Your task to perform on an android device: Go to wifi settings Image 0: 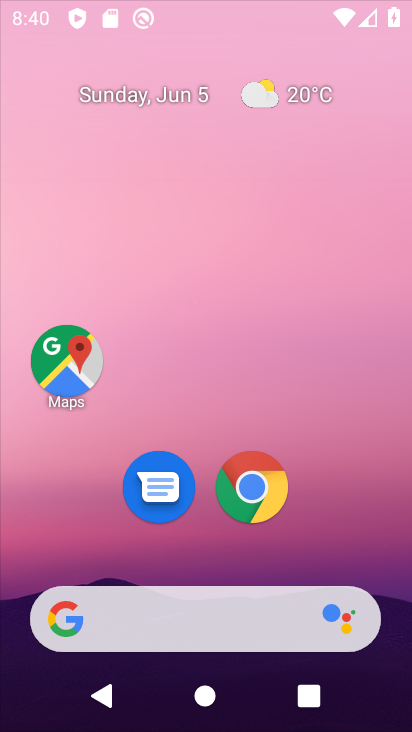
Step 0: drag from (166, 556) to (154, 486)
Your task to perform on an android device: Go to wifi settings Image 1: 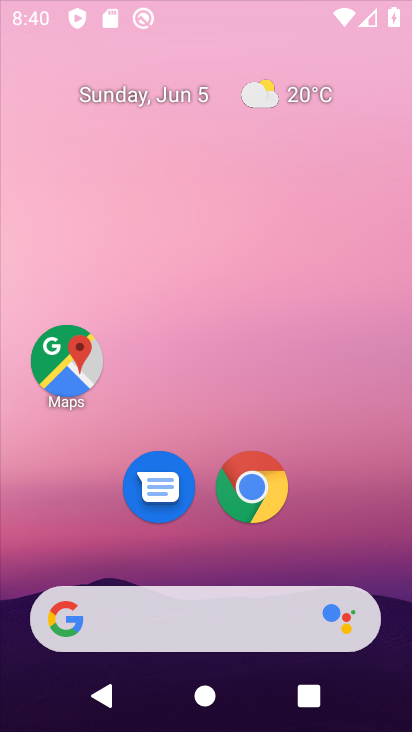
Step 1: drag from (237, 615) to (219, 252)
Your task to perform on an android device: Go to wifi settings Image 2: 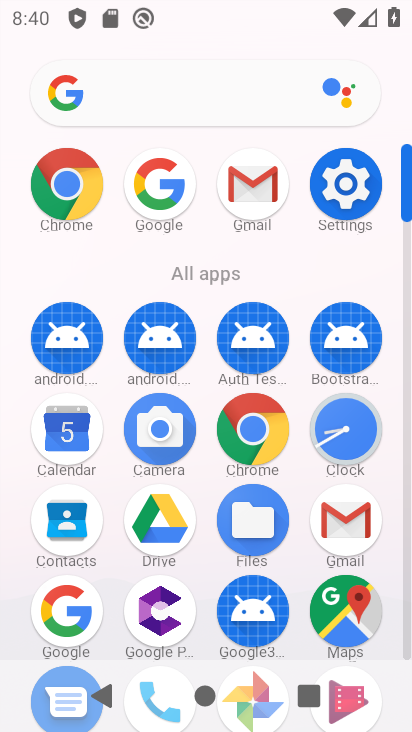
Step 2: click (361, 214)
Your task to perform on an android device: Go to wifi settings Image 3: 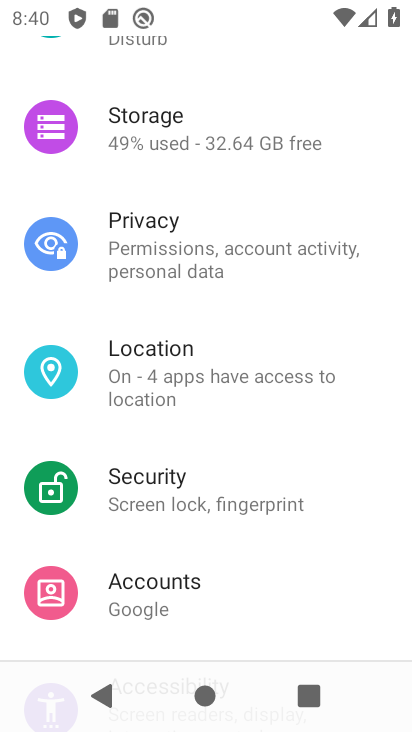
Step 3: drag from (184, 239) to (186, 466)
Your task to perform on an android device: Go to wifi settings Image 4: 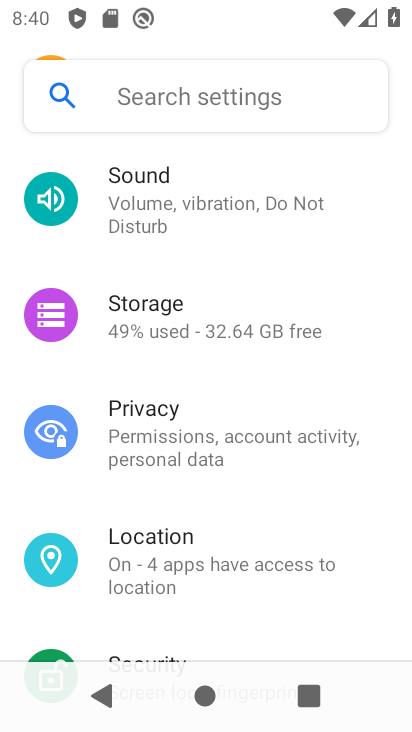
Step 4: drag from (139, 310) to (103, 510)
Your task to perform on an android device: Go to wifi settings Image 5: 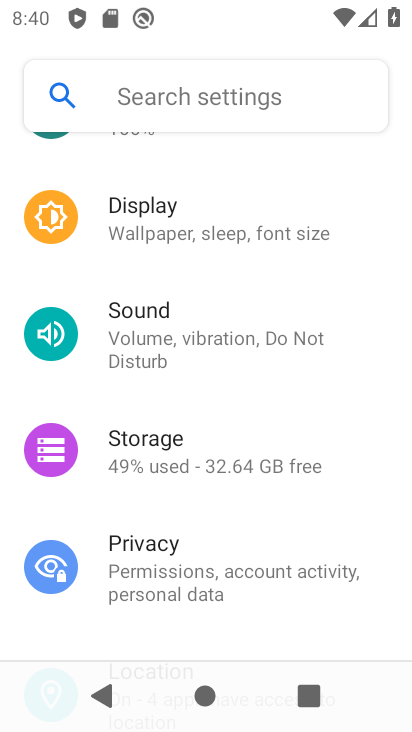
Step 5: drag from (197, 361) to (165, 566)
Your task to perform on an android device: Go to wifi settings Image 6: 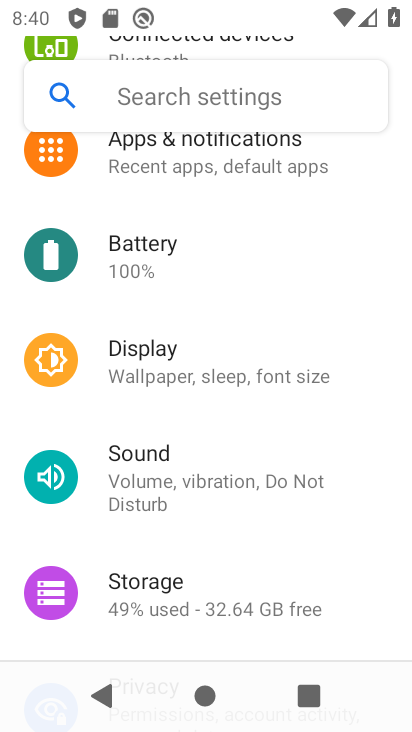
Step 6: drag from (219, 341) to (209, 584)
Your task to perform on an android device: Go to wifi settings Image 7: 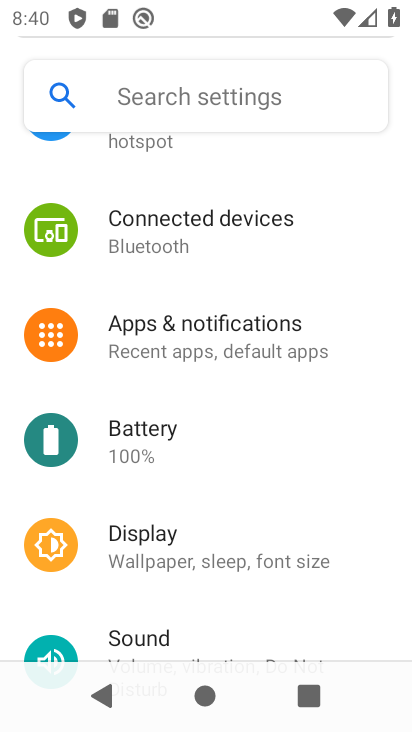
Step 7: drag from (196, 394) to (185, 569)
Your task to perform on an android device: Go to wifi settings Image 8: 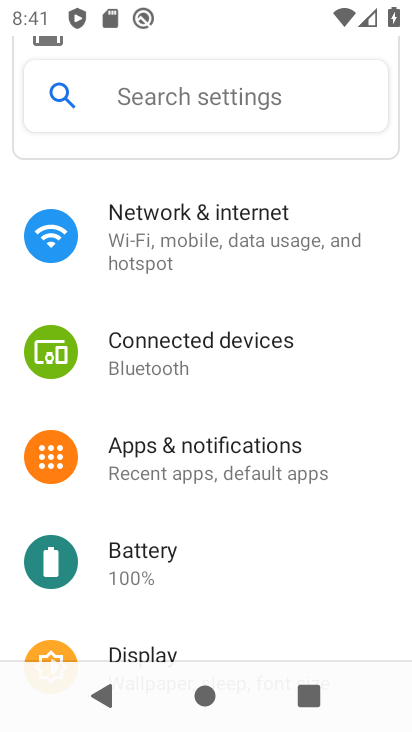
Step 8: click (245, 235)
Your task to perform on an android device: Go to wifi settings Image 9: 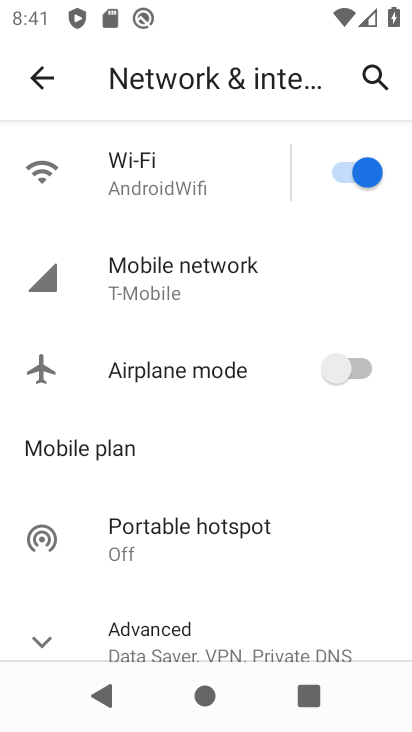
Step 9: click (213, 180)
Your task to perform on an android device: Go to wifi settings Image 10: 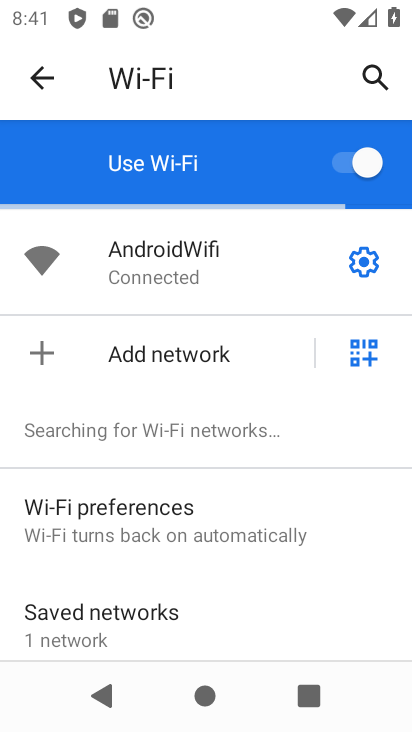
Step 10: task complete